Your task to perform on an android device: find which apps use the phone's location Image 0: 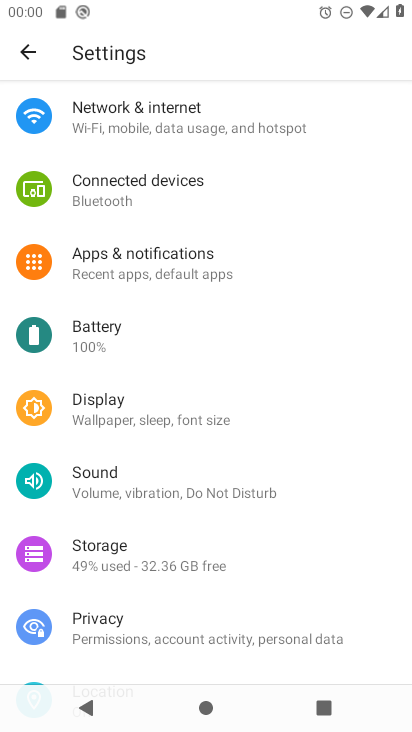
Step 0: drag from (117, 620) to (124, 281)
Your task to perform on an android device: find which apps use the phone's location Image 1: 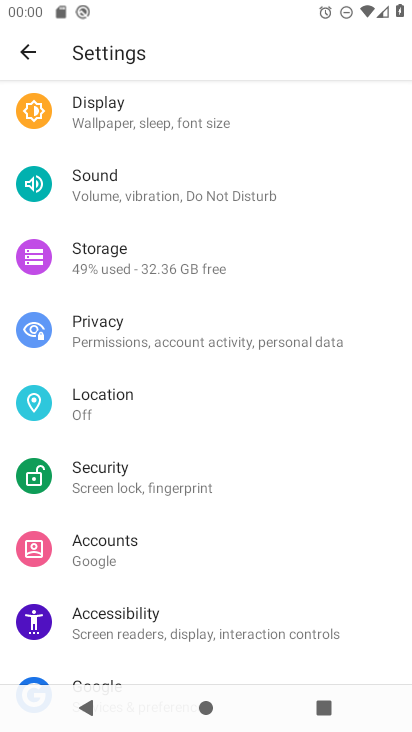
Step 1: click (114, 401)
Your task to perform on an android device: find which apps use the phone's location Image 2: 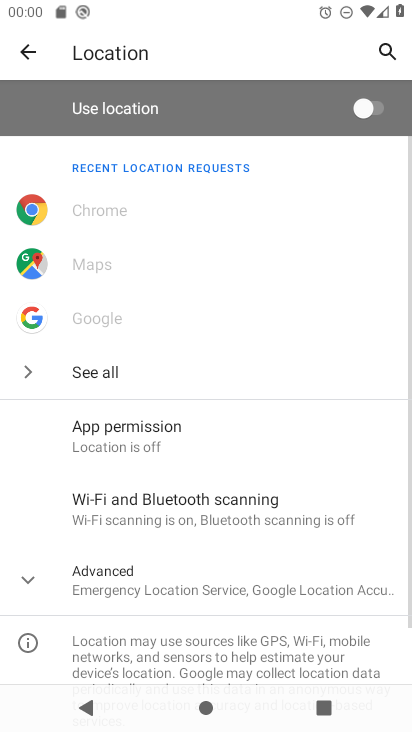
Step 2: click (110, 452)
Your task to perform on an android device: find which apps use the phone's location Image 3: 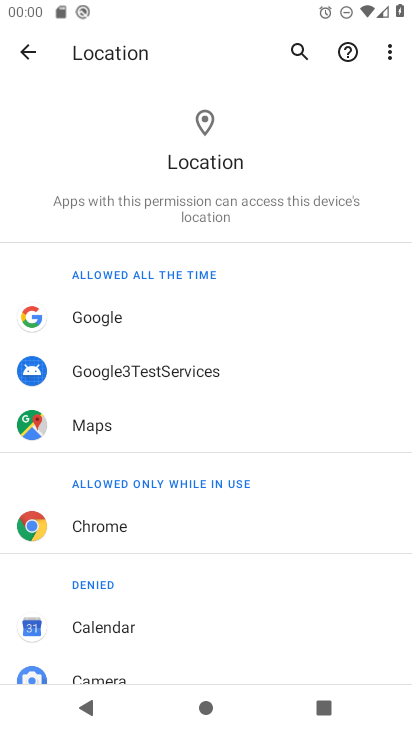
Step 3: task complete